Your task to perform on an android device: toggle notifications settings in the gmail app Image 0: 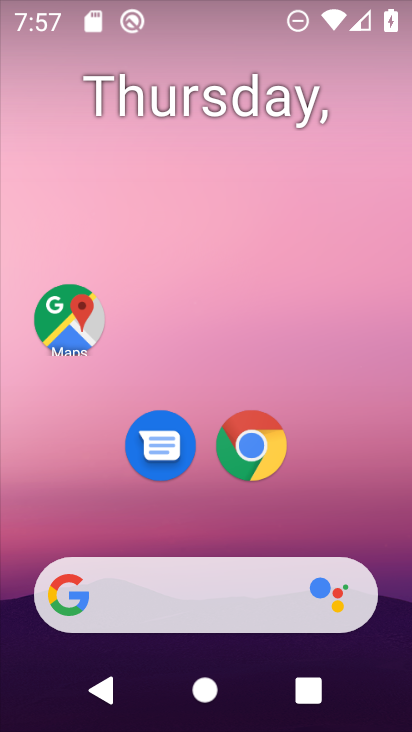
Step 0: drag from (340, 518) to (319, 24)
Your task to perform on an android device: toggle notifications settings in the gmail app Image 1: 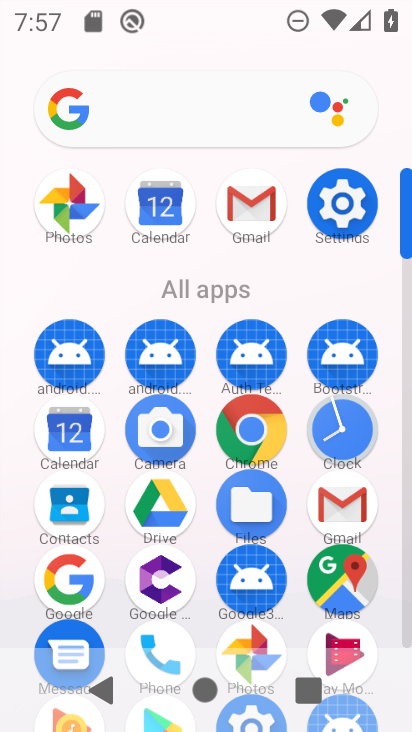
Step 1: click (249, 202)
Your task to perform on an android device: toggle notifications settings in the gmail app Image 2: 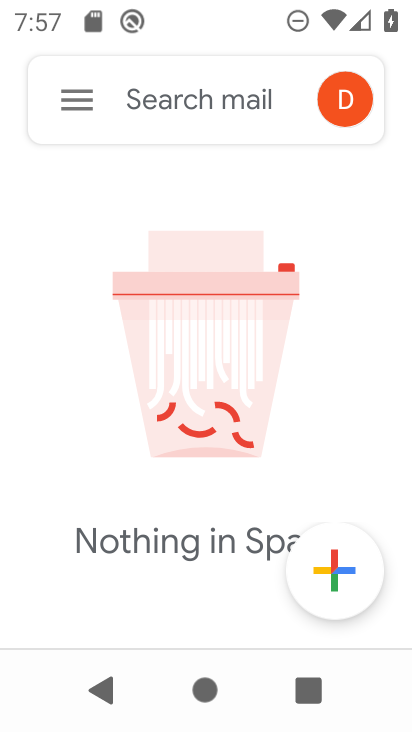
Step 2: click (70, 109)
Your task to perform on an android device: toggle notifications settings in the gmail app Image 3: 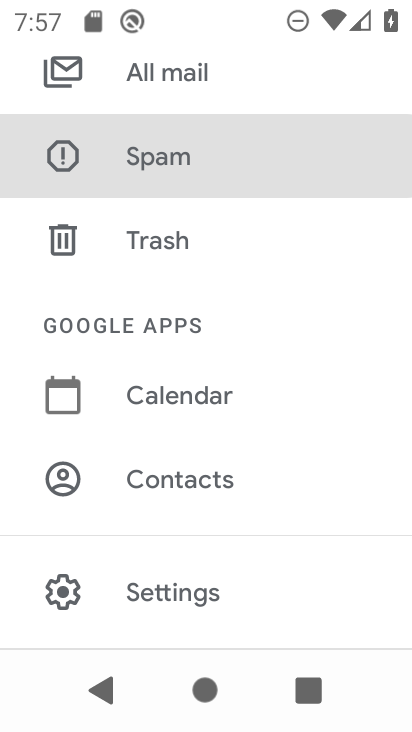
Step 3: click (187, 596)
Your task to perform on an android device: toggle notifications settings in the gmail app Image 4: 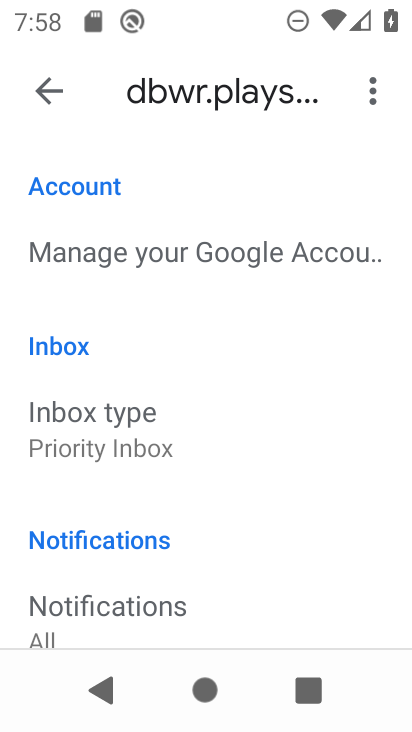
Step 4: click (38, 98)
Your task to perform on an android device: toggle notifications settings in the gmail app Image 5: 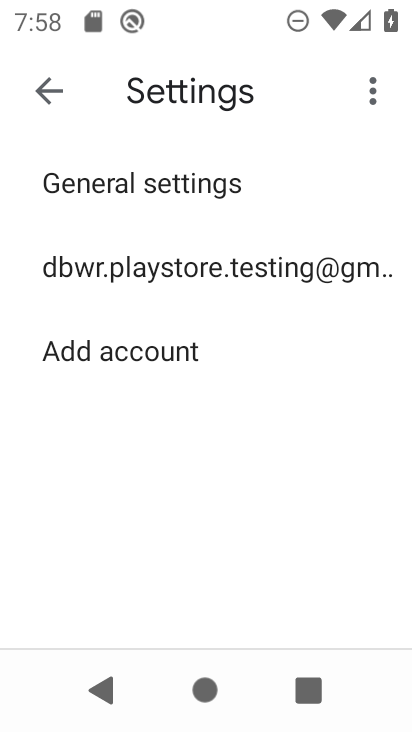
Step 5: click (104, 188)
Your task to perform on an android device: toggle notifications settings in the gmail app Image 6: 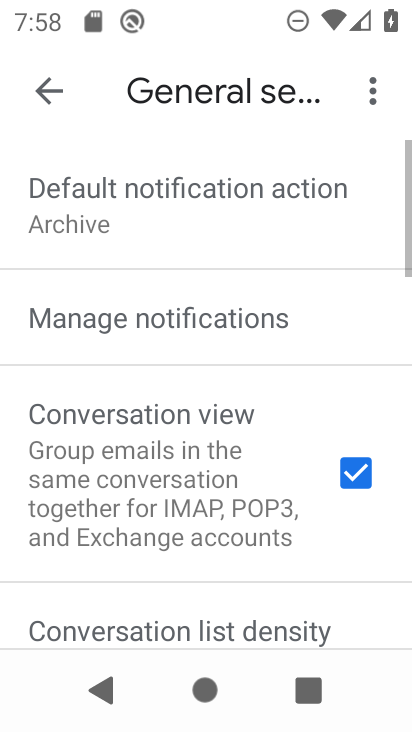
Step 6: click (144, 323)
Your task to perform on an android device: toggle notifications settings in the gmail app Image 7: 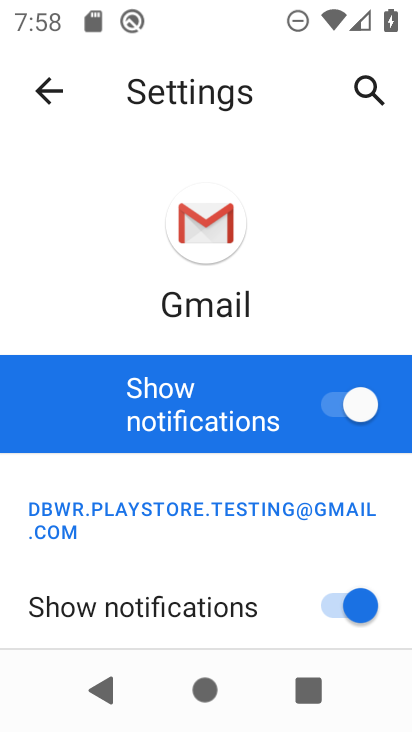
Step 7: click (352, 415)
Your task to perform on an android device: toggle notifications settings in the gmail app Image 8: 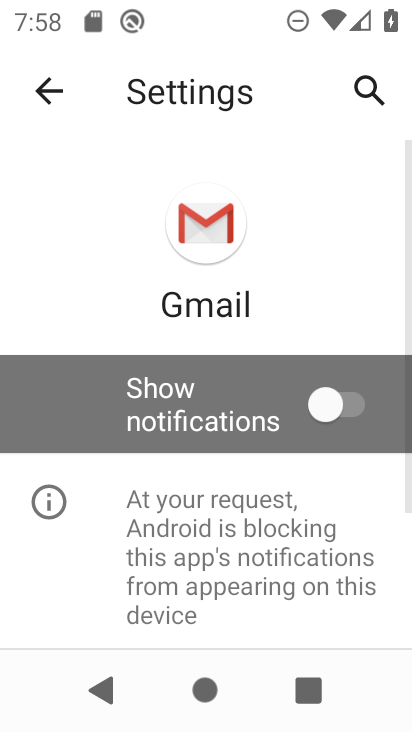
Step 8: task complete